Your task to perform on an android device: open device folders in google photos Image 0: 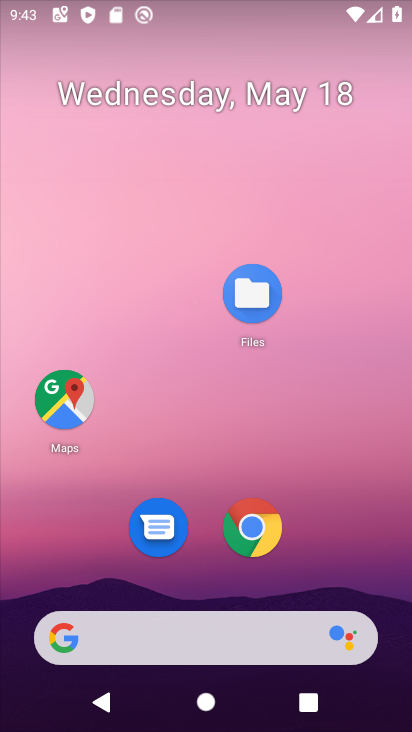
Step 0: drag from (352, 532) to (354, 153)
Your task to perform on an android device: open device folders in google photos Image 1: 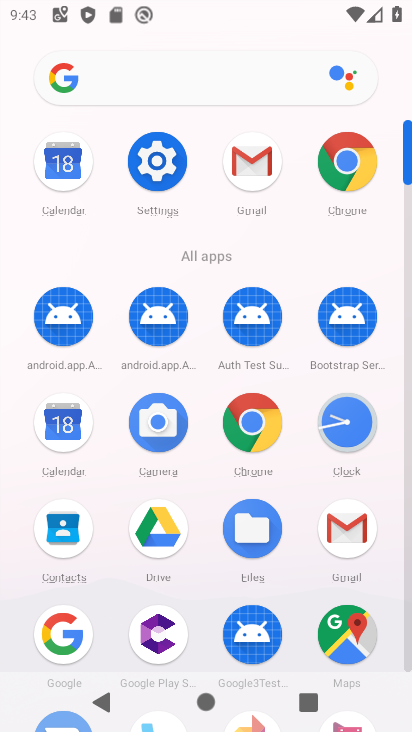
Step 1: drag from (307, 620) to (310, 250)
Your task to perform on an android device: open device folders in google photos Image 2: 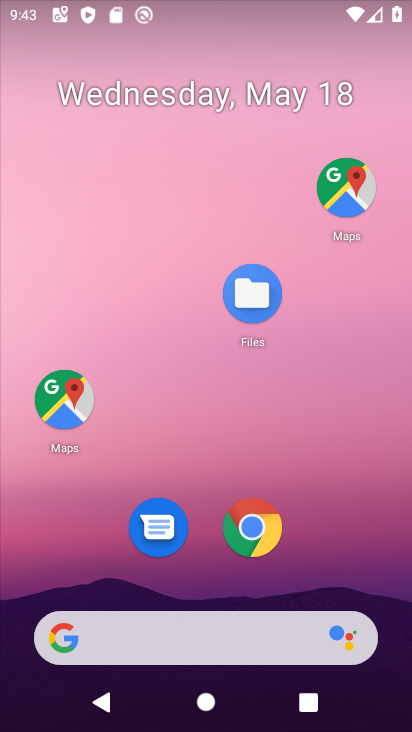
Step 2: drag from (340, 533) to (343, 127)
Your task to perform on an android device: open device folders in google photos Image 3: 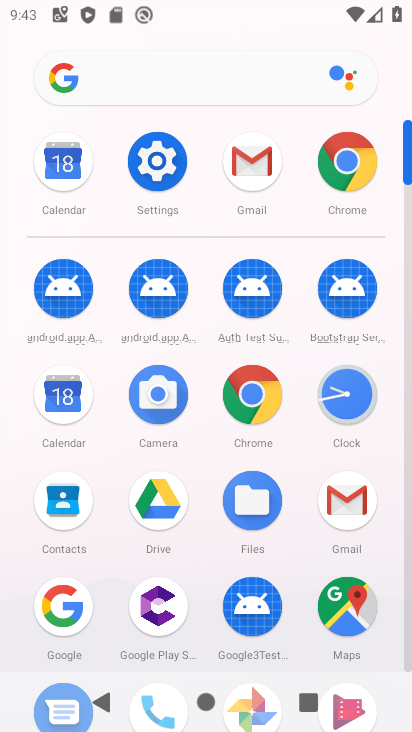
Step 3: drag from (283, 639) to (279, 219)
Your task to perform on an android device: open device folders in google photos Image 4: 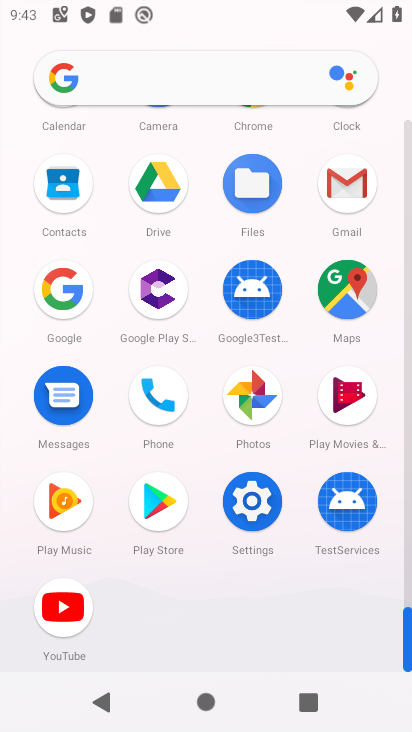
Step 4: click (254, 401)
Your task to perform on an android device: open device folders in google photos Image 5: 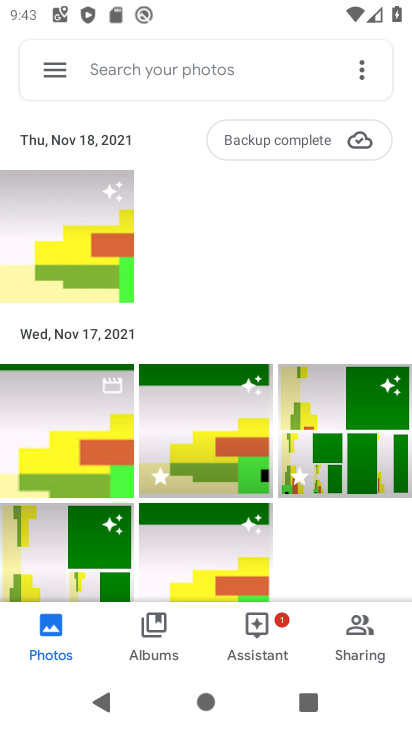
Step 5: click (59, 76)
Your task to perform on an android device: open device folders in google photos Image 6: 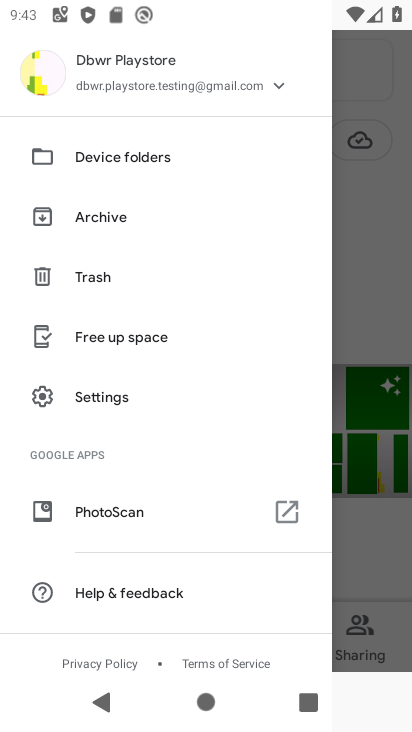
Step 6: click (130, 156)
Your task to perform on an android device: open device folders in google photos Image 7: 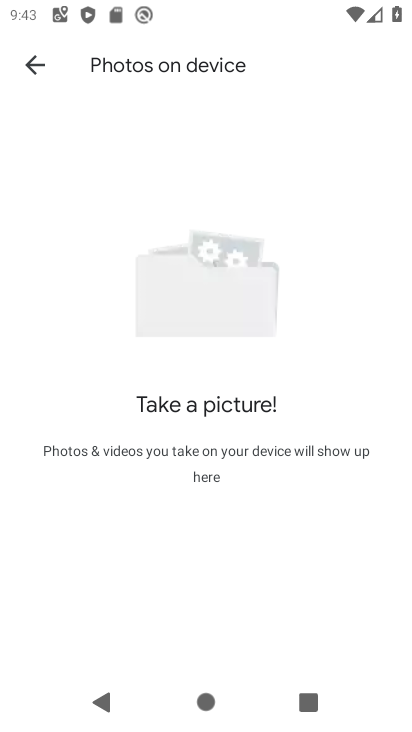
Step 7: task complete